Your task to perform on an android device: open chrome privacy settings Image 0: 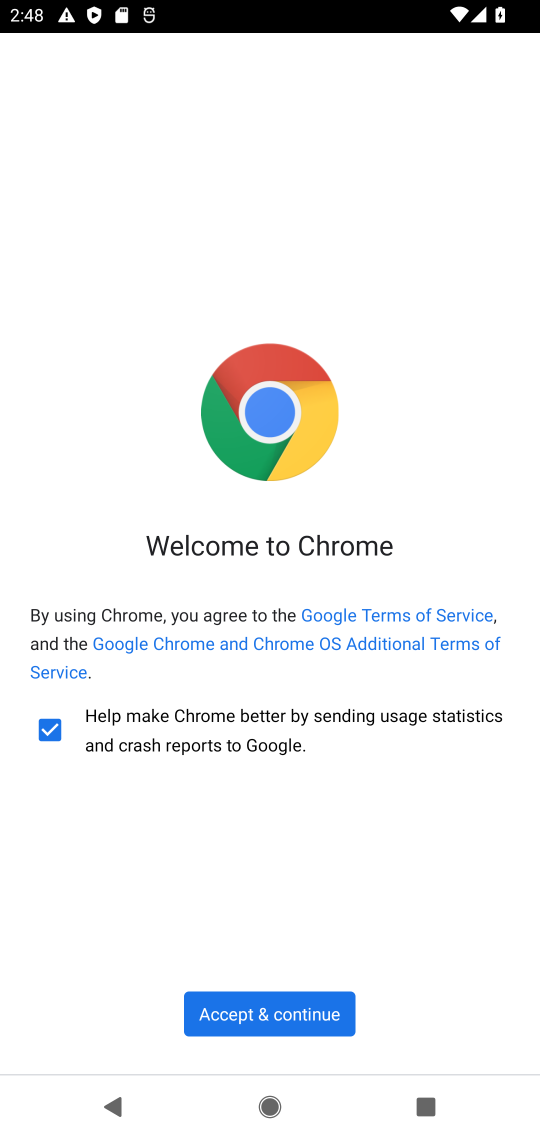
Step 0: press home button
Your task to perform on an android device: open chrome privacy settings Image 1: 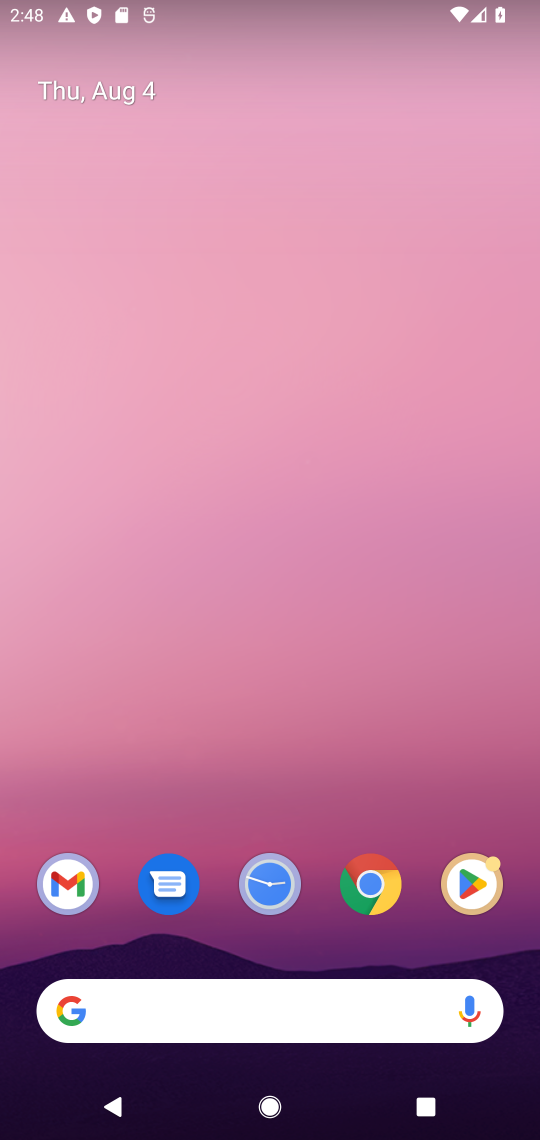
Step 1: drag from (413, 816) to (438, 165)
Your task to perform on an android device: open chrome privacy settings Image 2: 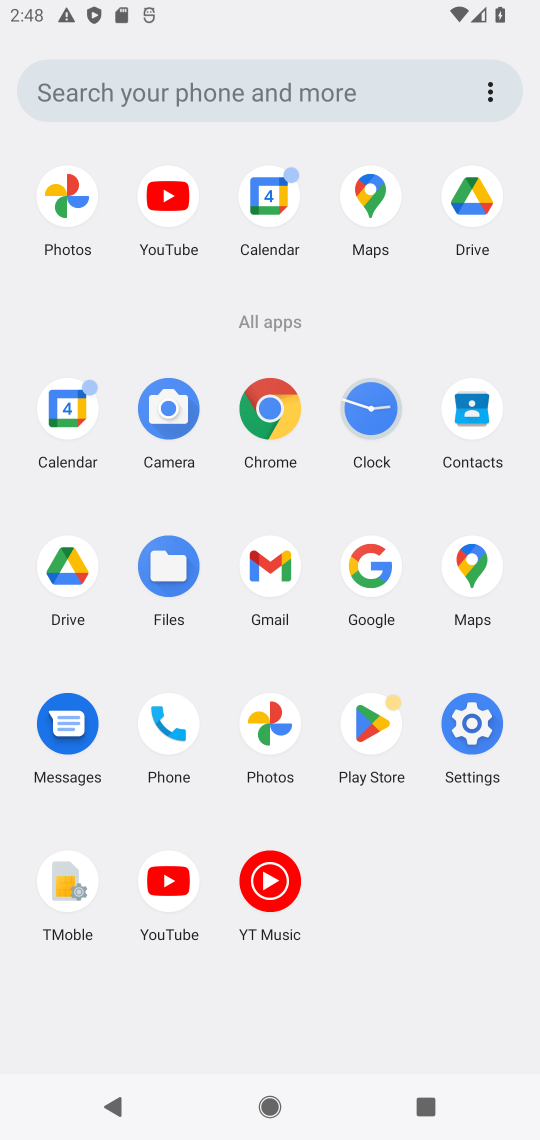
Step 2: click (274, 410)
Your task to perform on an android device: open chrome privacy settings Image 3: 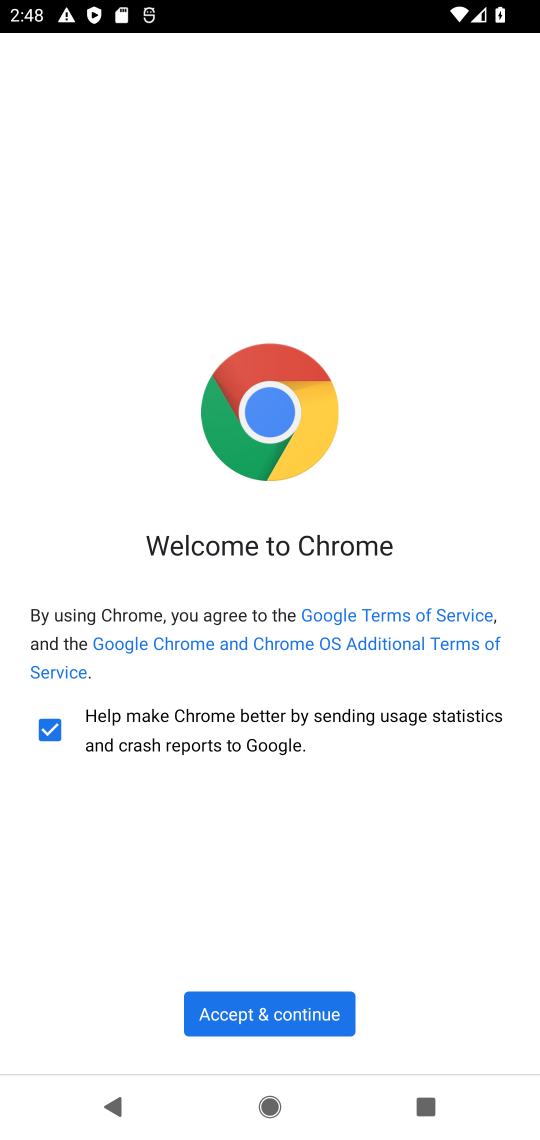
Step 3: click (260, 1016)
Your task to perform on an android device: open chrome privacy settings Image 4: 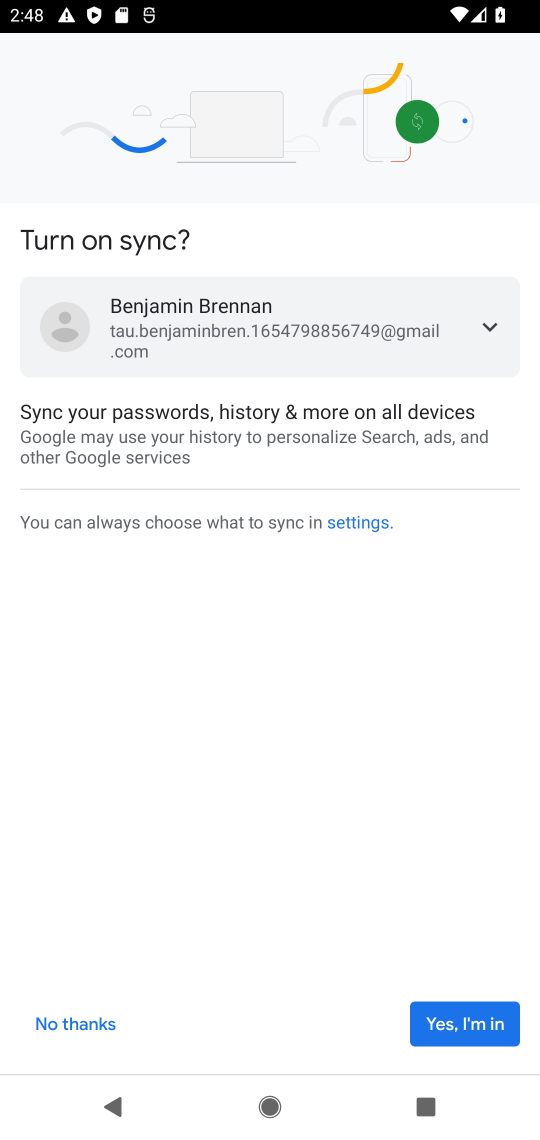
Step 4: click (460, 1016)
Your task to perform on an android device: open chrome privacy settings Image 5: 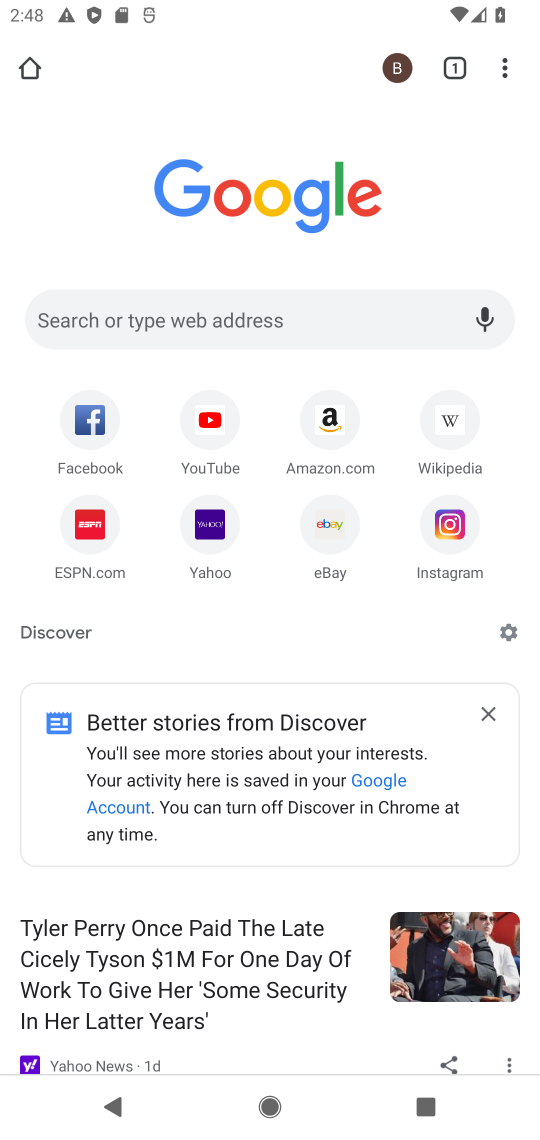
Step 5: click (501, 71)
Your task to perform on an android device: open chrome privacy settings Image 6: 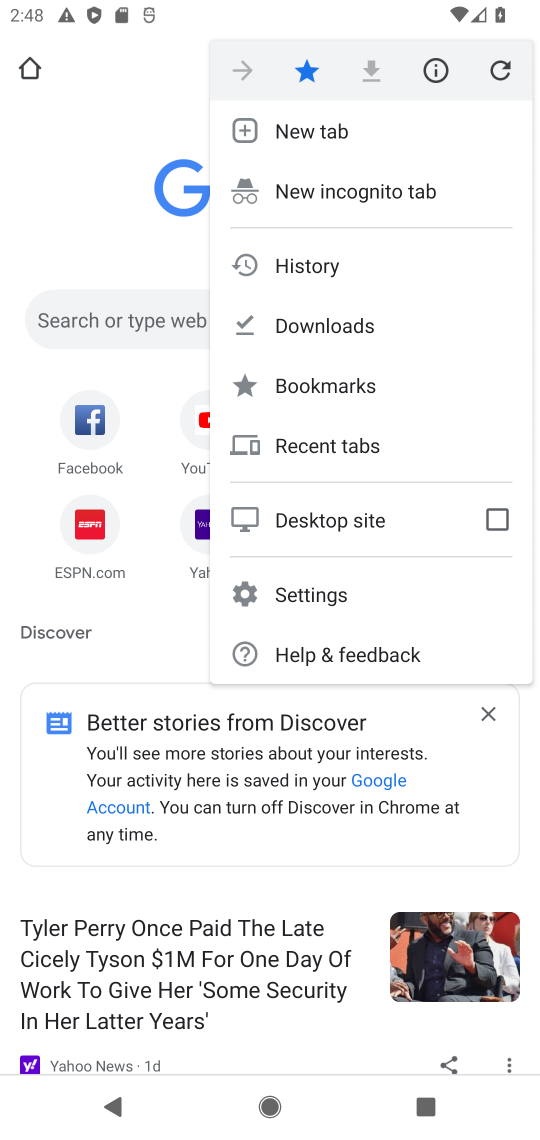
Step 6: click (330, 596)
Your task to perform on an android device: open chrome privacy settings Image 7: 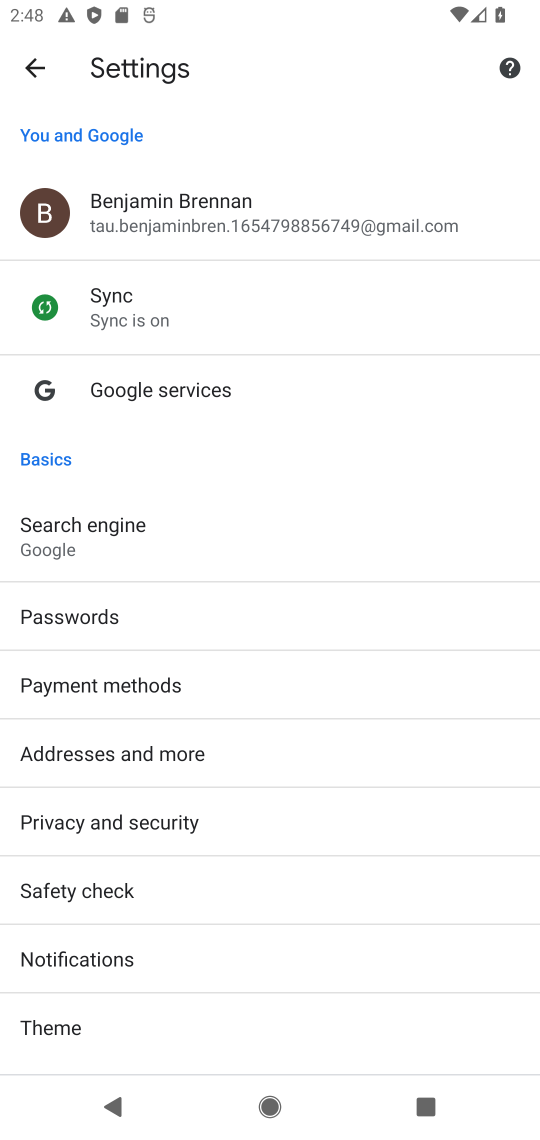
Step 7: click (340, 817)
Your task to perform on an android device: open chrome privacy settings Image 8: 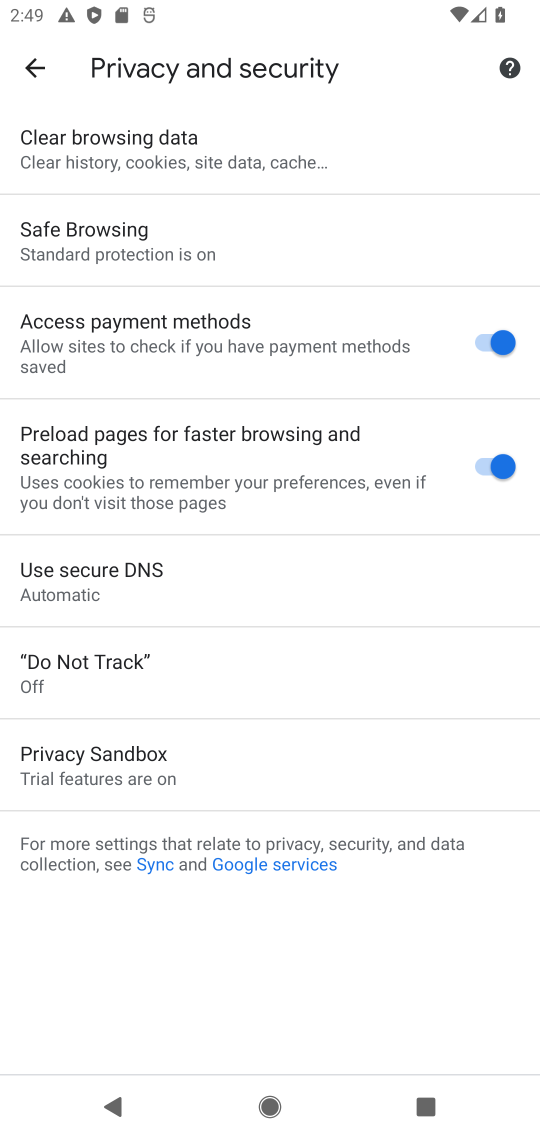
Step 8: task complete